Your task to perform on an android device: change notifications settings Image 0: 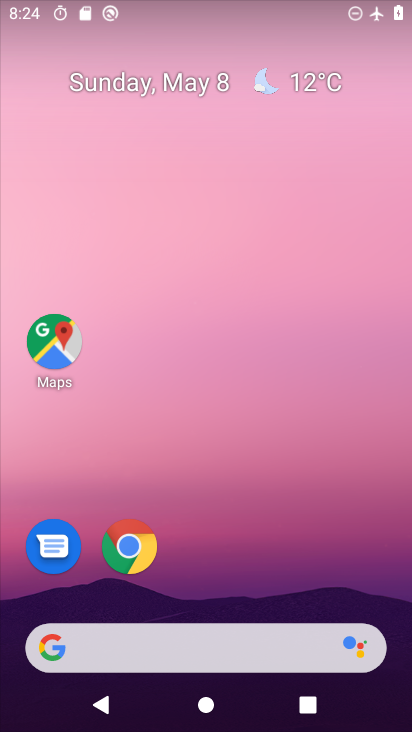
Step 0: drag from (294, 542) to (288, 44)
Your task to perform on an android device: change notifications settings Image 1: 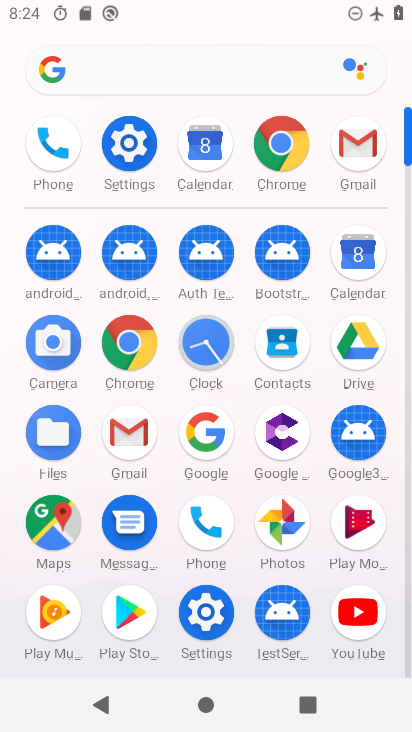
Step 1: click (133, 134)
Your task to perform on an android device: change notifications settings Image 2: 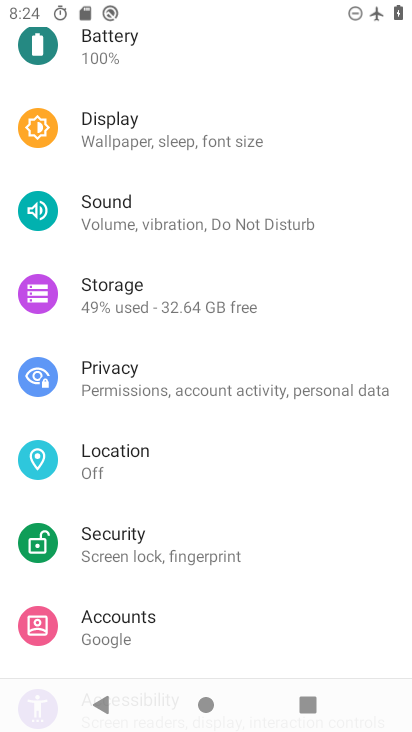
Step 2: drag from (188, 187) to (241, 580)
Your task to perform on an android device: change notifications settings Image 3: 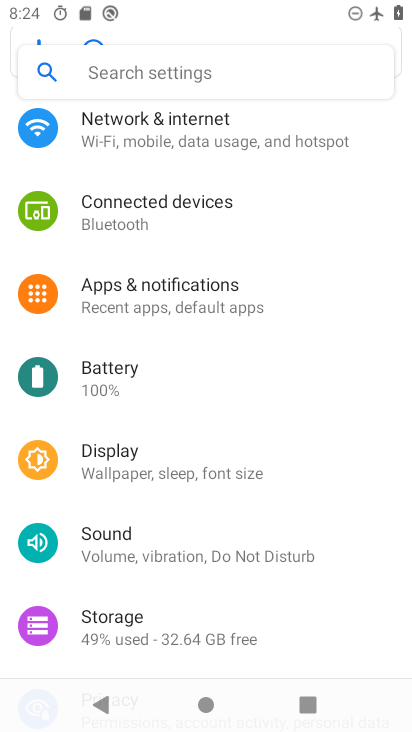
Step 3: click (200, 282)
Your task to perform on an android device: change notifications settings Image 4: 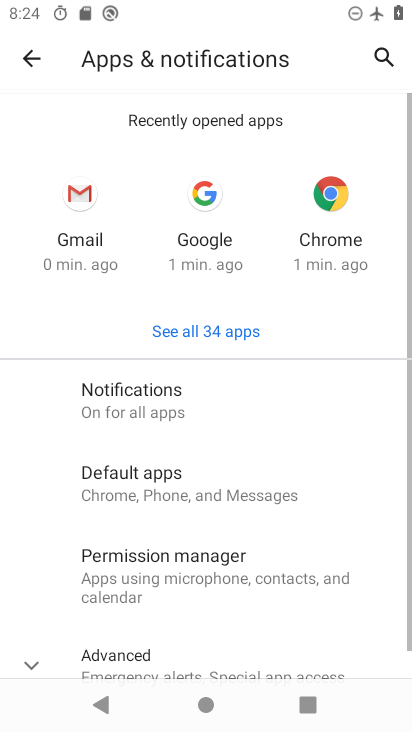
Step 4: click (170, 393)
Your task to perform on an android device: change notifications settings Image 5: 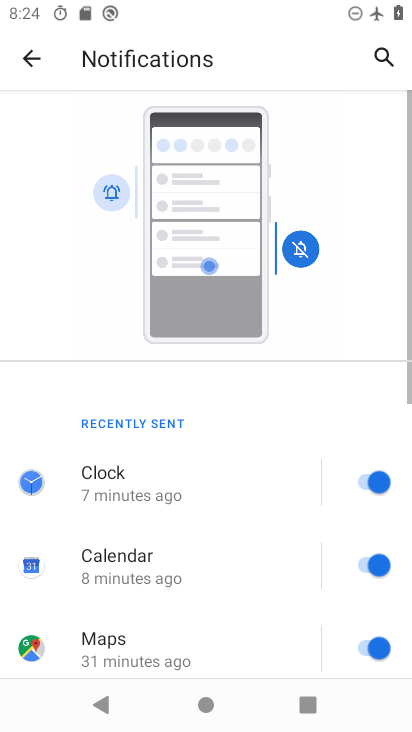
Step 5: drag from (224, 625) to (253, 212)
Your task to perform on an android device: change notifications settings Image 6: 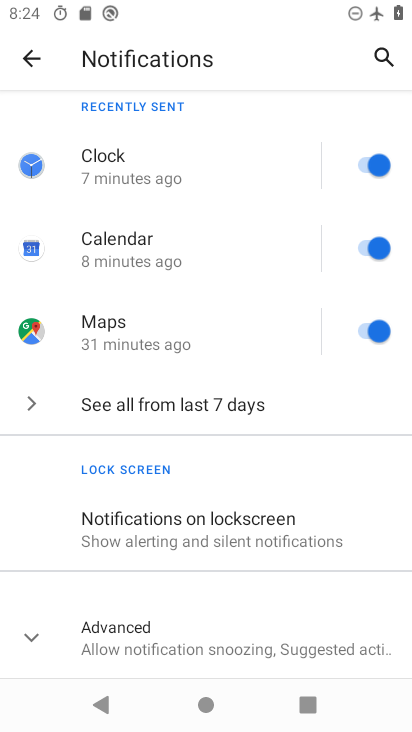
Step 6: click (211, 407)
Your task to perform on an android device: change notifications settings Image 7: 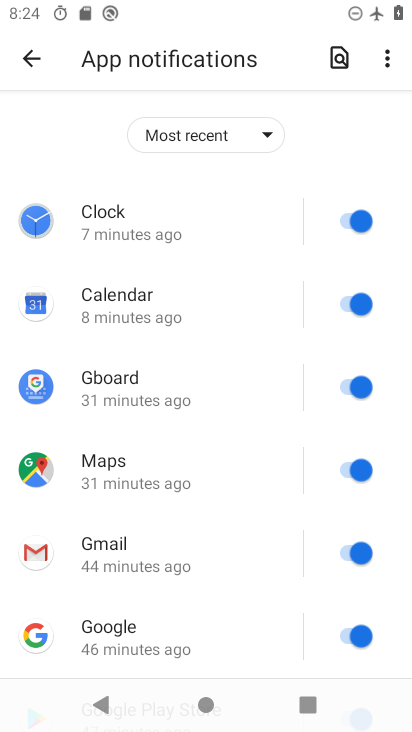
Step 7: click (351, 204)
Your task to perform on an android device: change notifications settings Image 8: 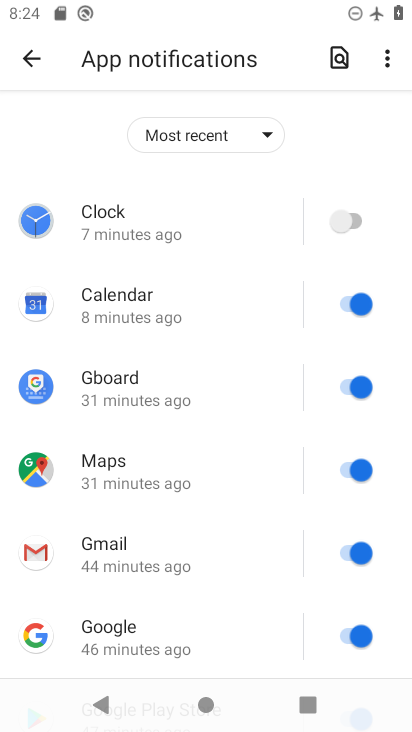
Step 8: click (349, 304)
Your task to perform on an android device: change notifications settings Image 9: 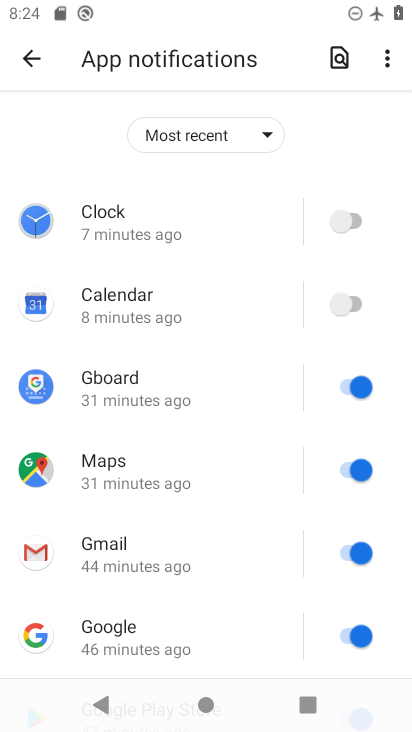
Step 9: click (355, 383)
Your task to perform on an android device: change notifications settings Image 10: 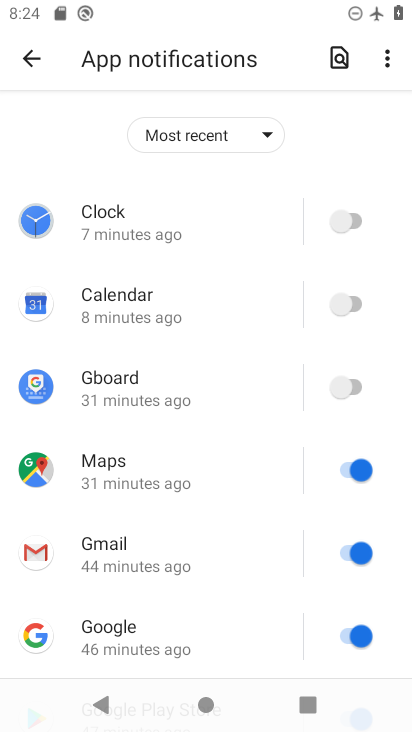
Step 10: click (360, 477)
Your task to perform on an android device: change notifications settings Image 11: 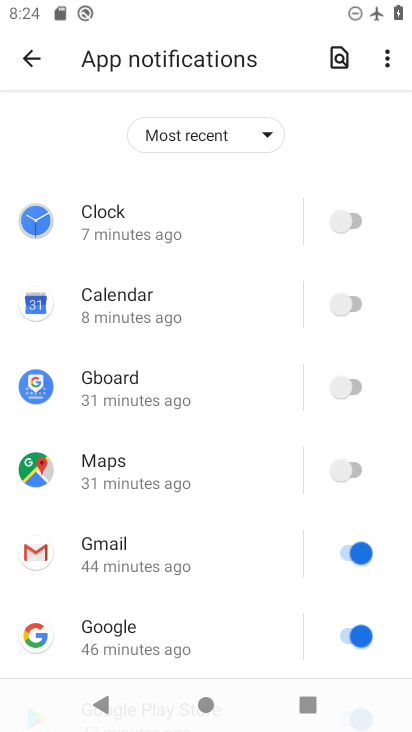
Step 11: click (357, 551)
Your task to perform on an android device: change notifications settings Image 12: 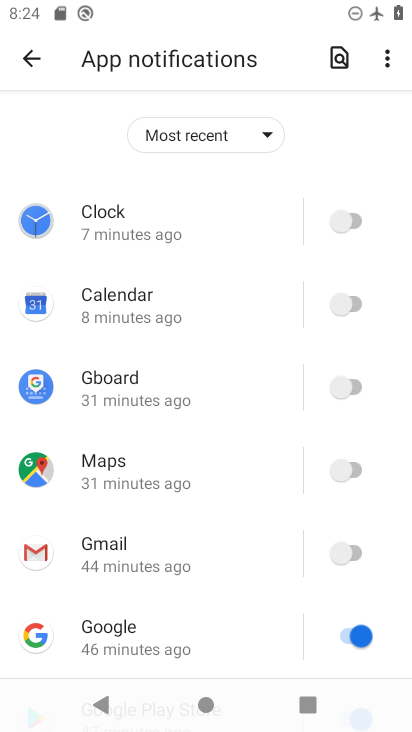
Step 12: click (349, 633)
Your task to perform on an android device: change notifications settings Image 13: 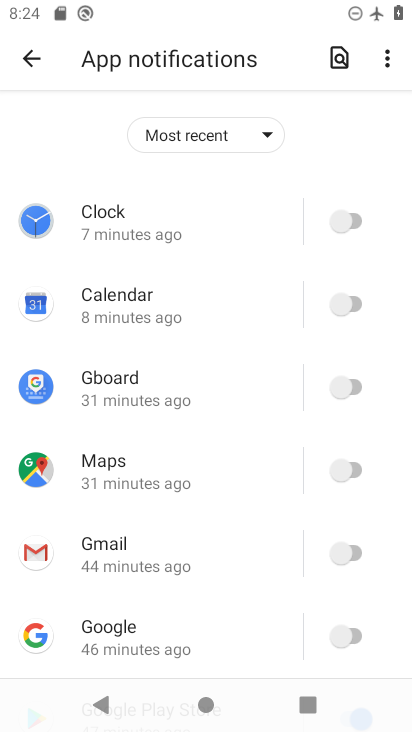
Step 13: drag from (243, 594) to (280, 93)
Your task to perform on an android device: change notifications settings Image 14: 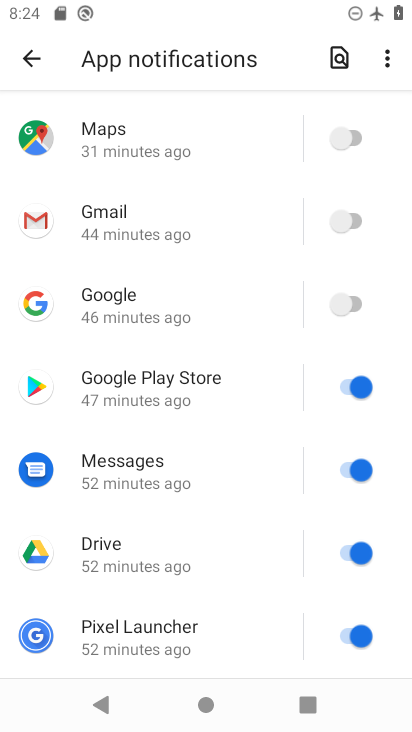
Step 14: click (357, 368)
Your task to perform on an android device: change notifications settings Image 15: 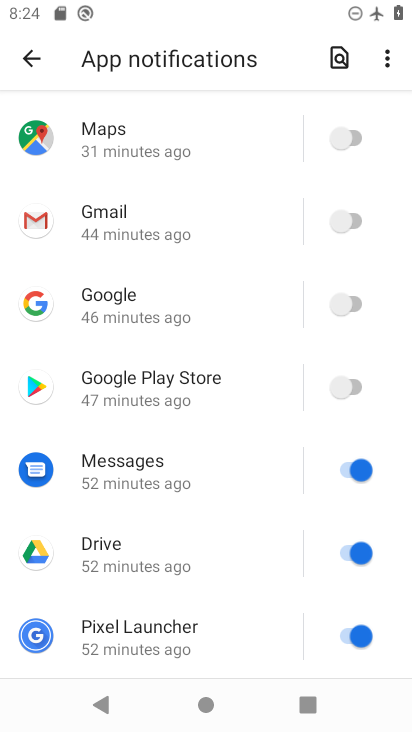
Step 15: click (346, 471)
Your task to perform on an android device: change notifications settings Image 16: 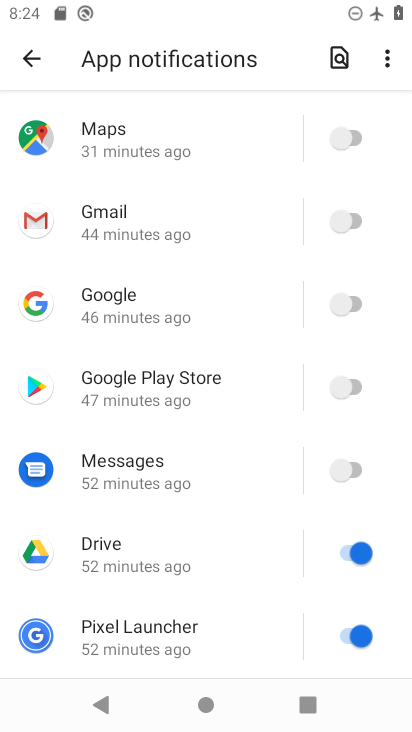
Step 16: click (354, 548)
Your task to perform on an android device: change notifications settings Image 17: 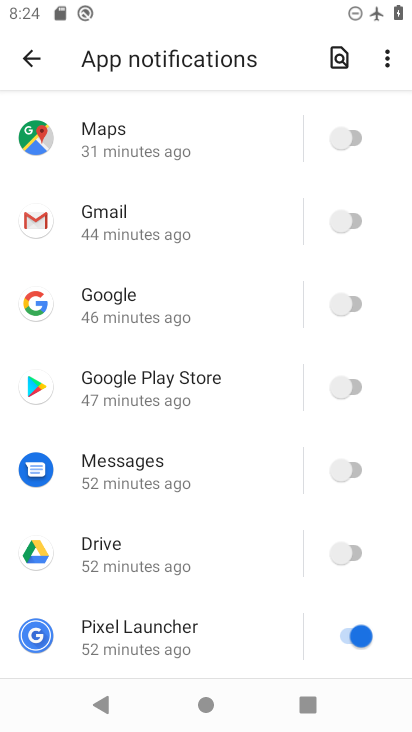
Step 17: click (356, 644)
Your task to perform on an android device: change notifications settings Image 18: 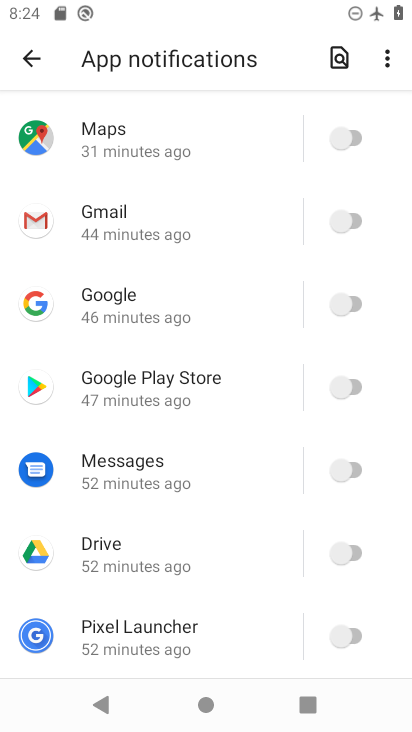
Step 18: task complete